Your task to perform on an android device: install app "PUBG MOBILE" Image 0: 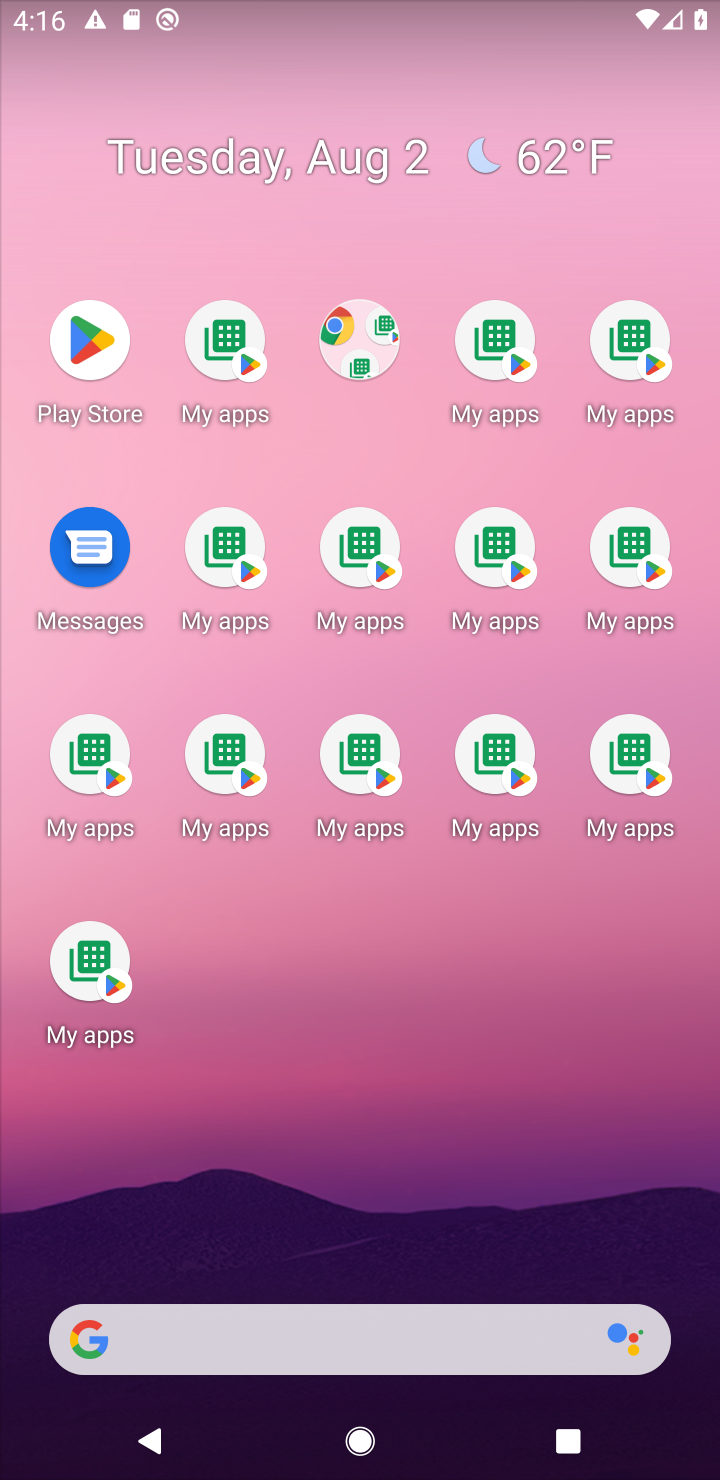
Step 0: click (96, 316)
Your task to perform on an android device: install app "PUBG MOBILE" Image 1: 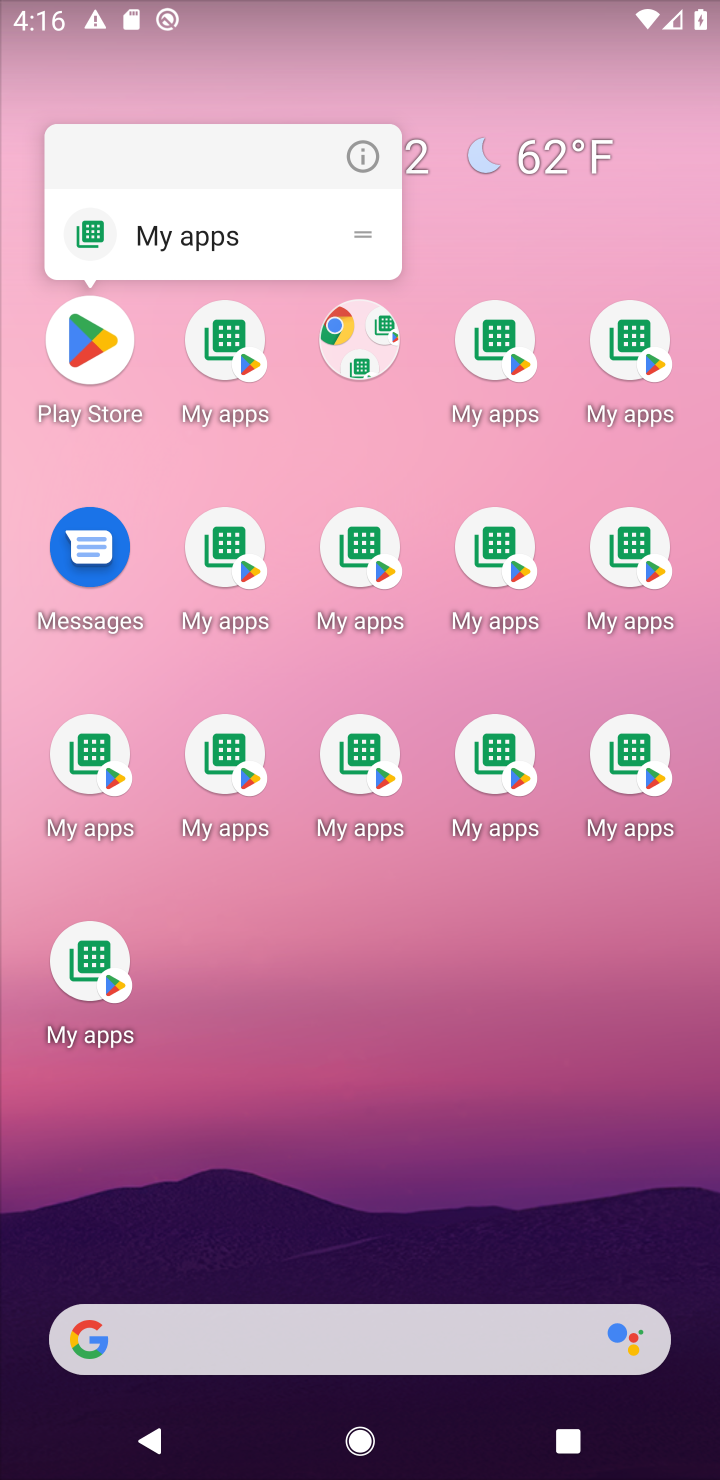
Step 1: press back button
Your task to perform on an android device: install app "PUBG MOBILE" Image 2: 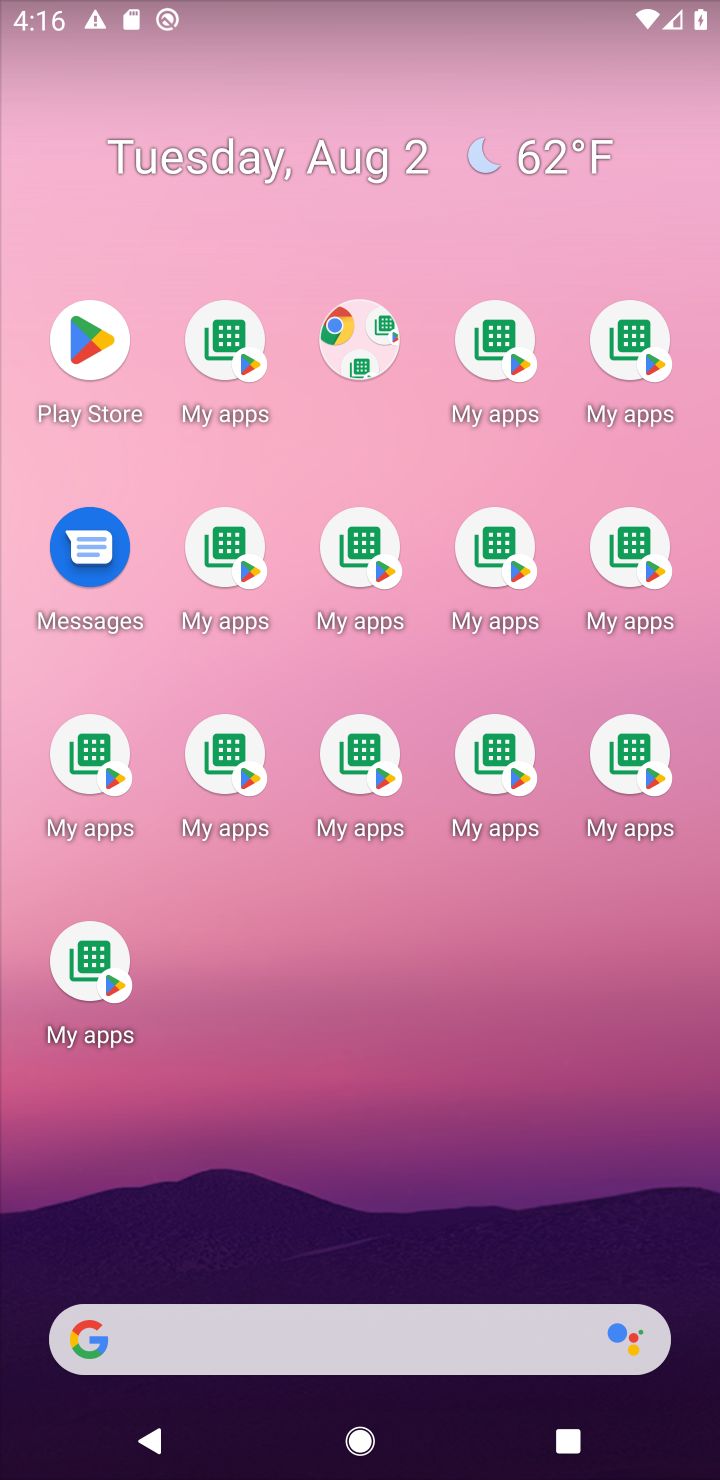
Step 2: drag from (398, 279) to (397, 397)
Your task to perform on an android device: install app "PUBG MOBILE" Image 3: 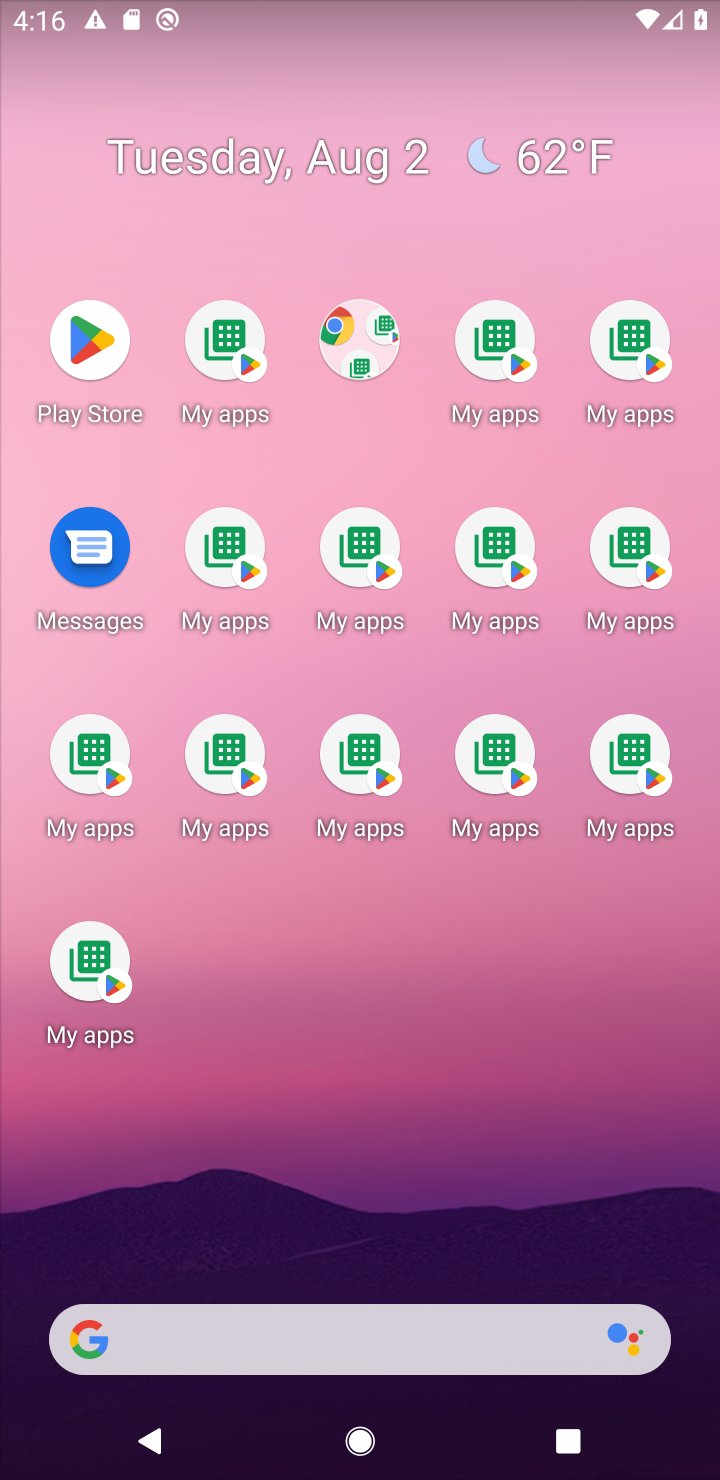
Step 3: drag from (32, 693) to (0, 389)
Your task to perform on an android device: install app "PUBG MOBILE" Image 4: 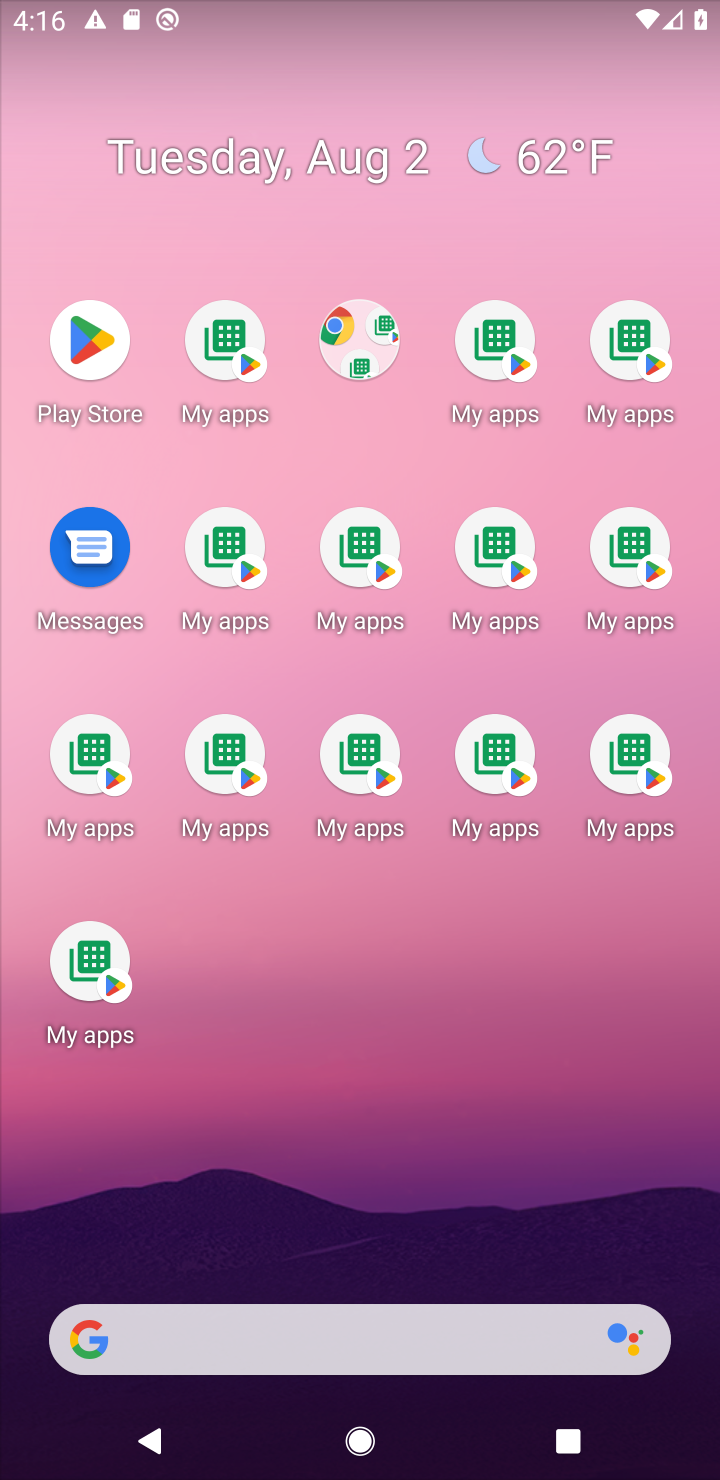
Step 4: click (291, 354)
Your task to perform on an android device: install app "PUBG MOBILE" Image 5: 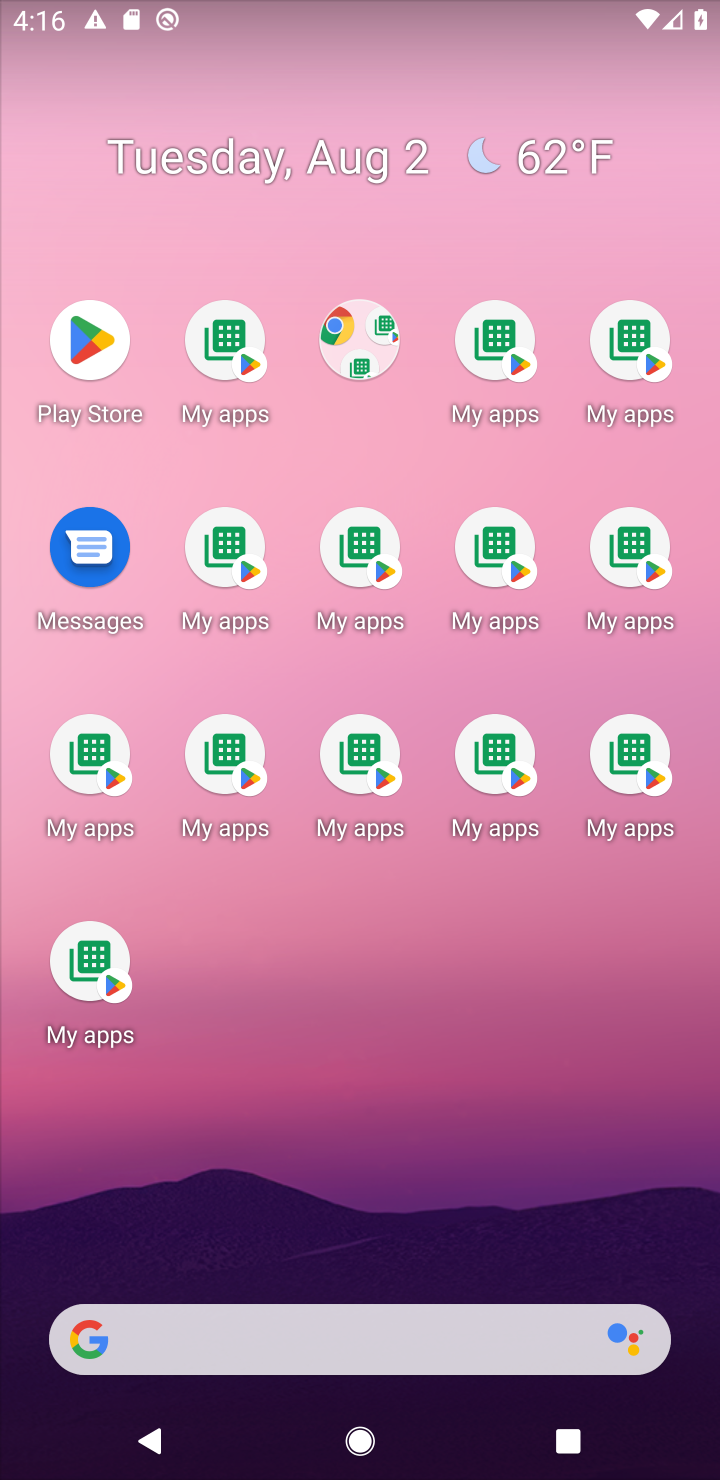
Step 5: drag from (313, 86) to (698, 414)
Your task to perform on an android device: install app "PUBG MOBILE" Image 6: 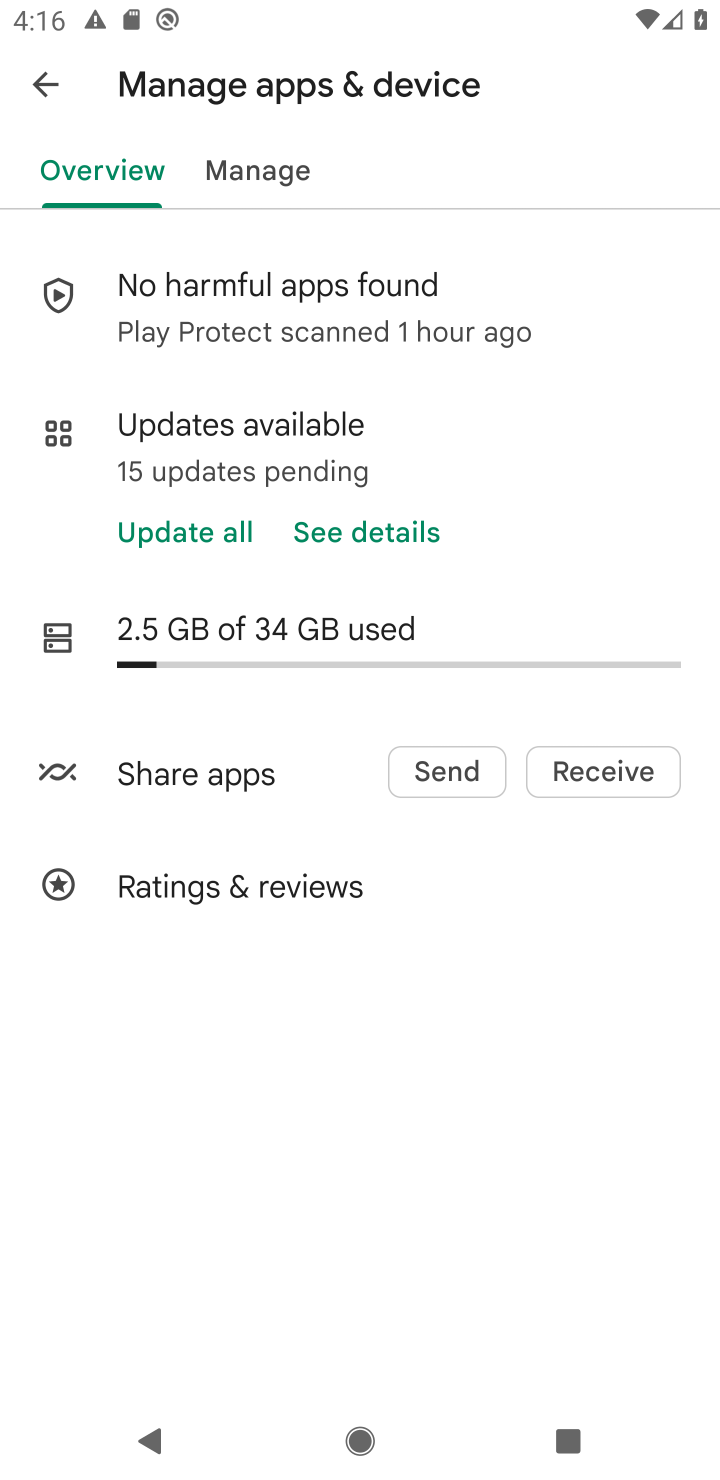
Step 6: drag from (607, 780) to (314, 83)
Your task to perform on an android device: install app "PUBG MOBILE" Image 7: 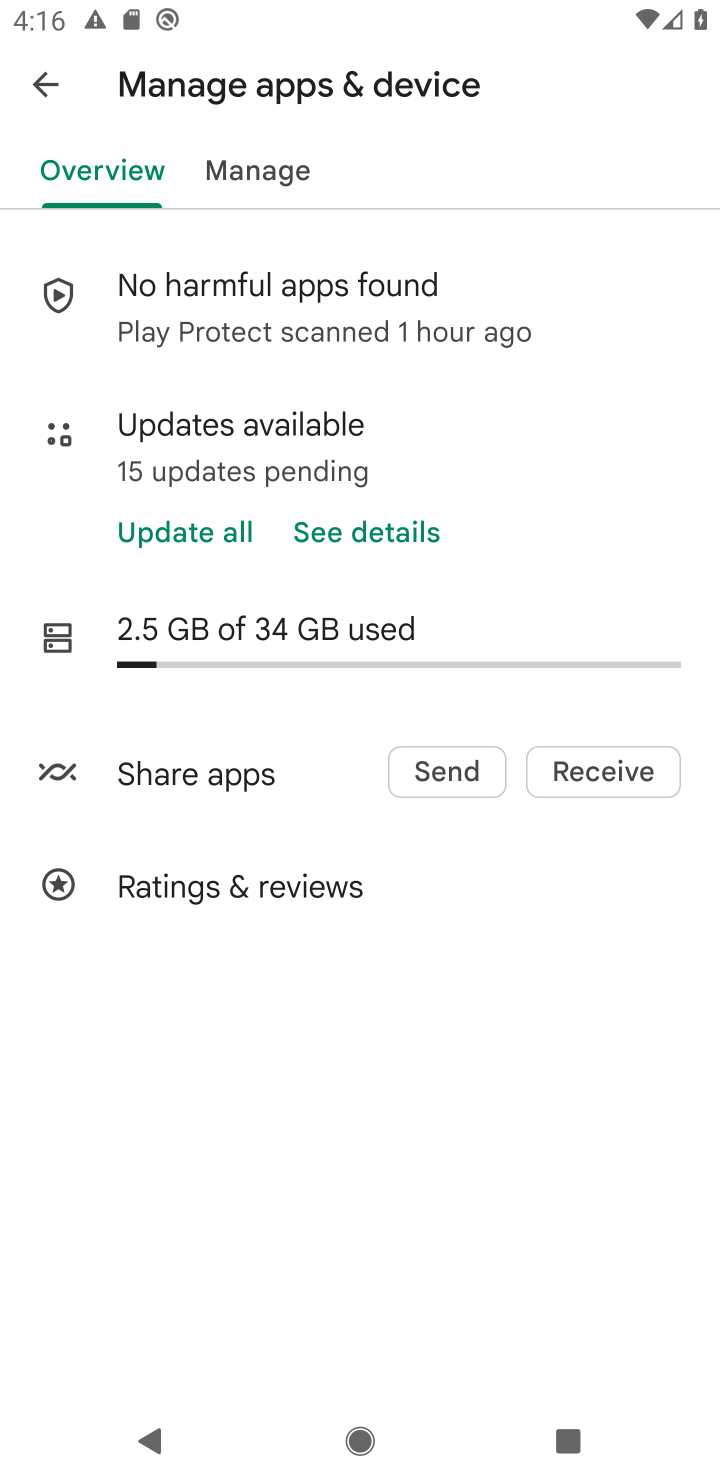
Step 7: click (28, 72)
Your task to perform on an android device: install app "PUBG MOBILE" Image 8: 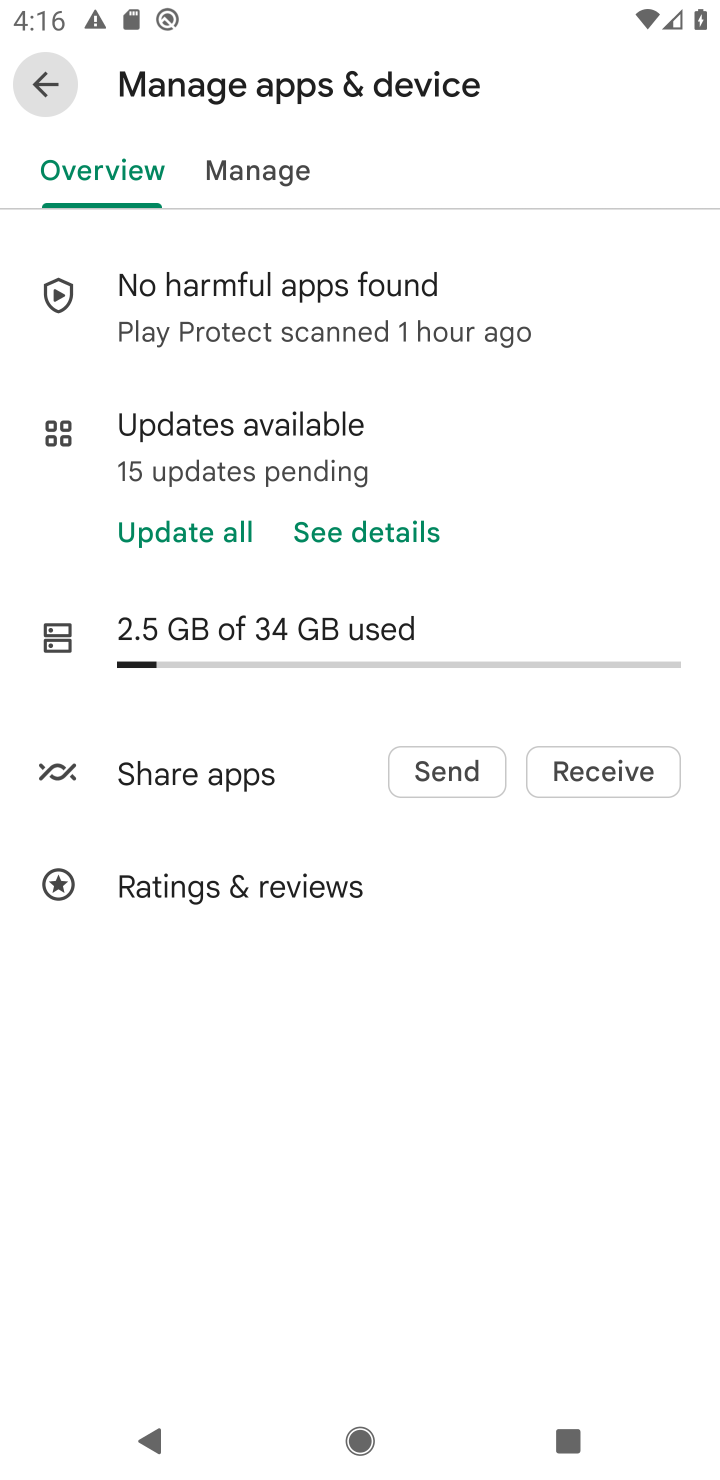
Step 8: click (22, 65)
Your task to perform on an android device: install app "PUBG MOBILE" Image 9: 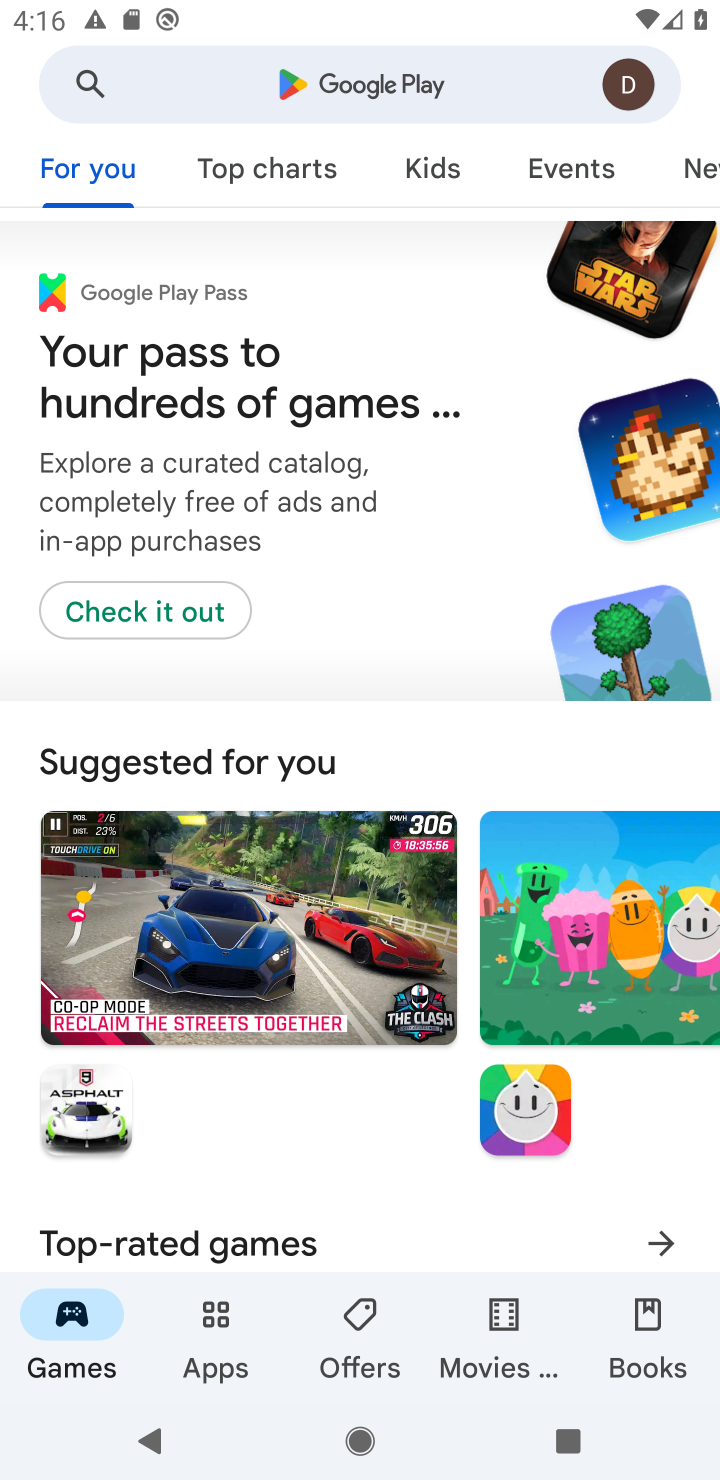
Step 9: click (344, 70)
Your task to perform on an android device: install app "PUBG MOBILE" Image 10: 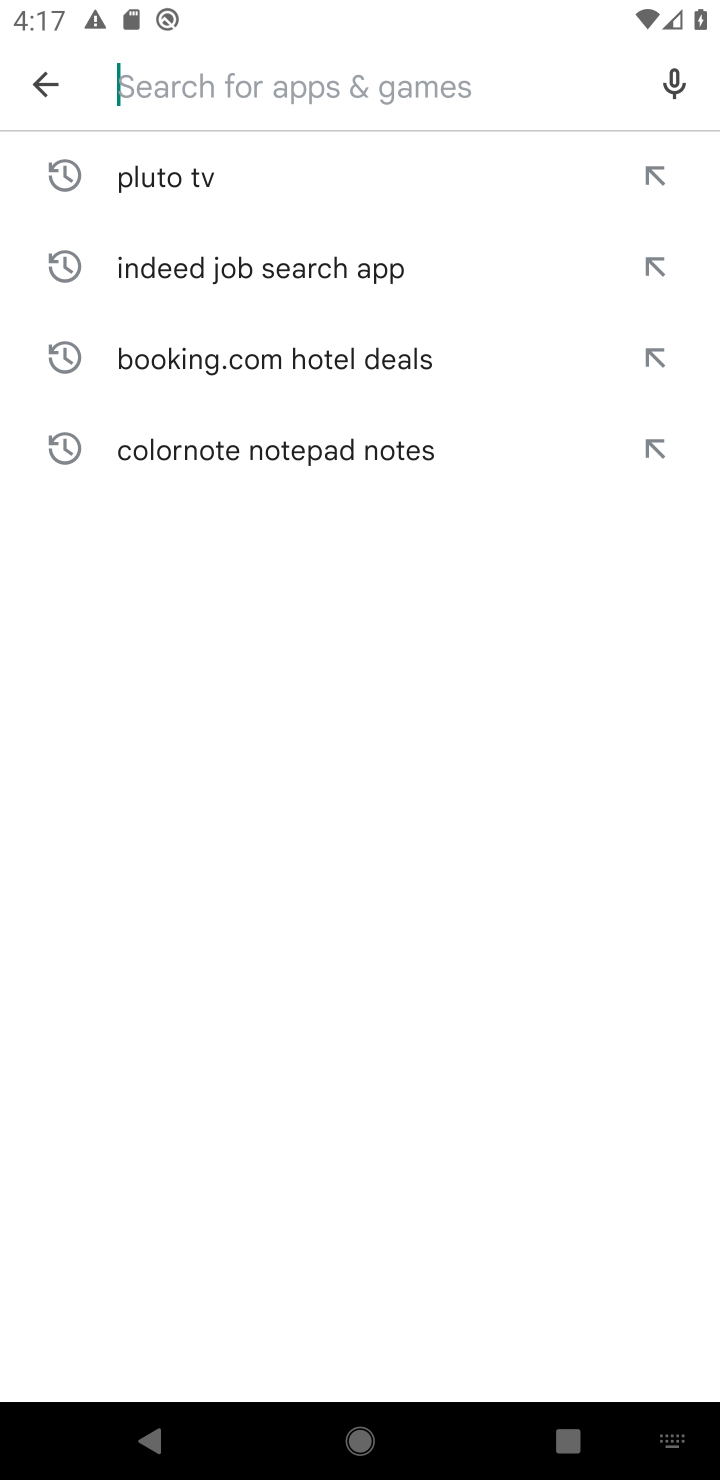
Step 10: type "pubg mobile"
Your task to perform on an android device: install app "PUBG MOBILE" Image 11: 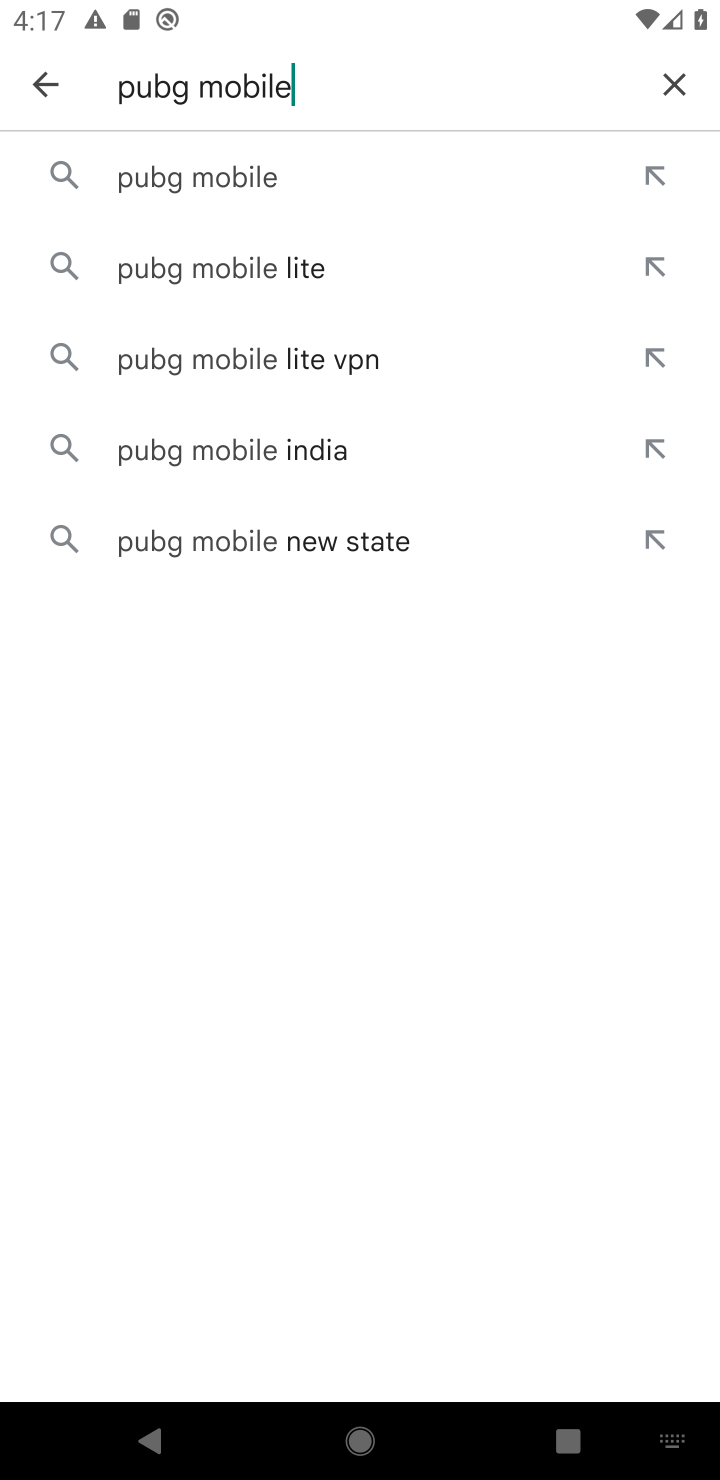
Step 11: click (228, 196)
Your task to perform on an android device: install app "PUBG MOBILE" Image 12: 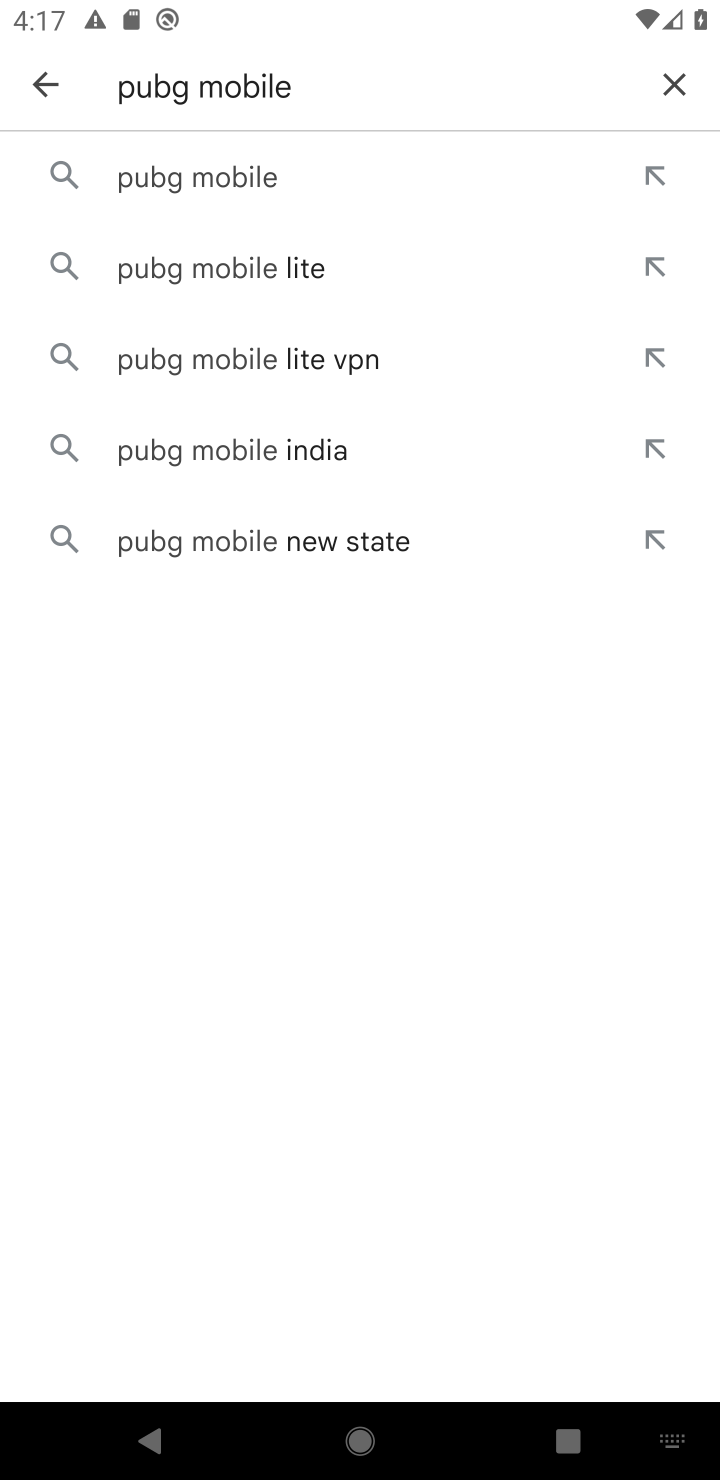
Step 12: click (230, 190)
Your task to perform on an android device: install app "PUBG MOBILE" Image 13: 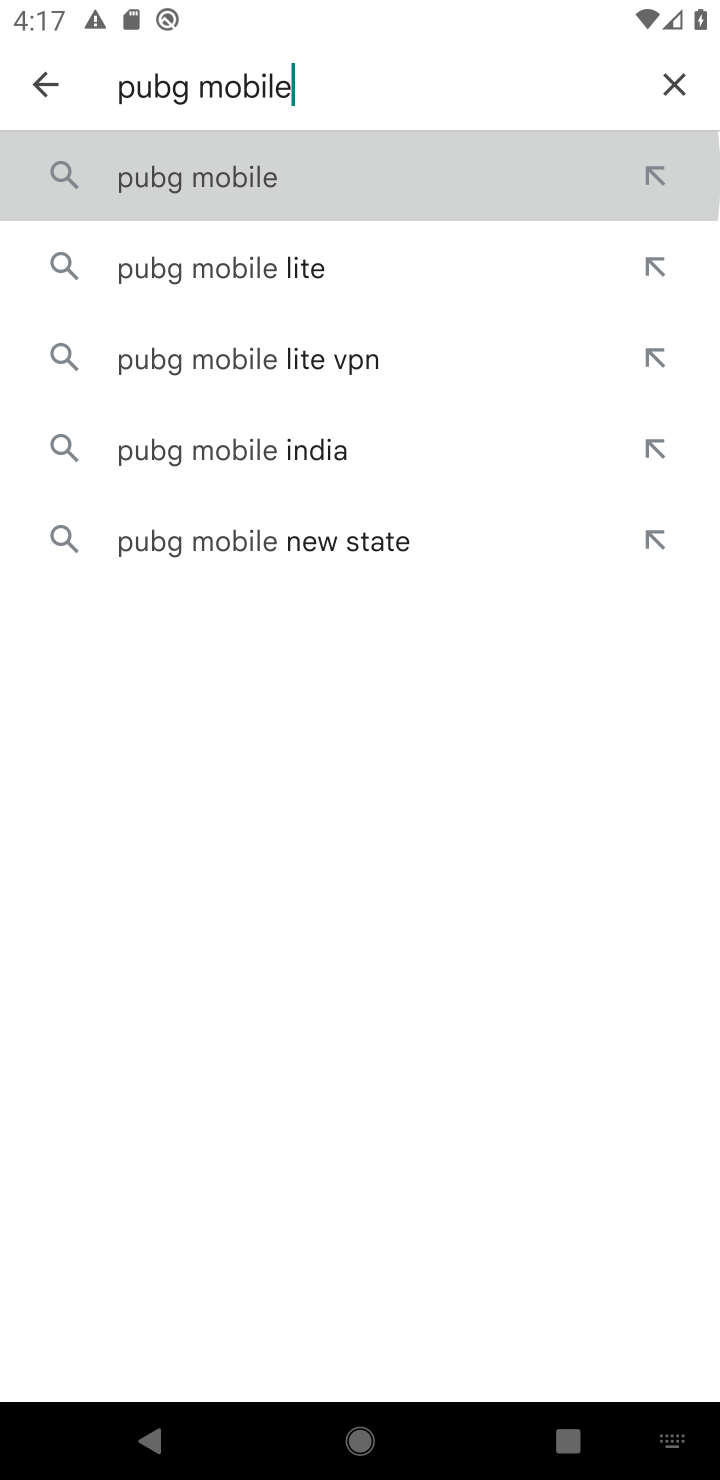
Step 13: click (231, 189)
Your task to perform on an android device: install app "PUBG MOBILE" Image 14: 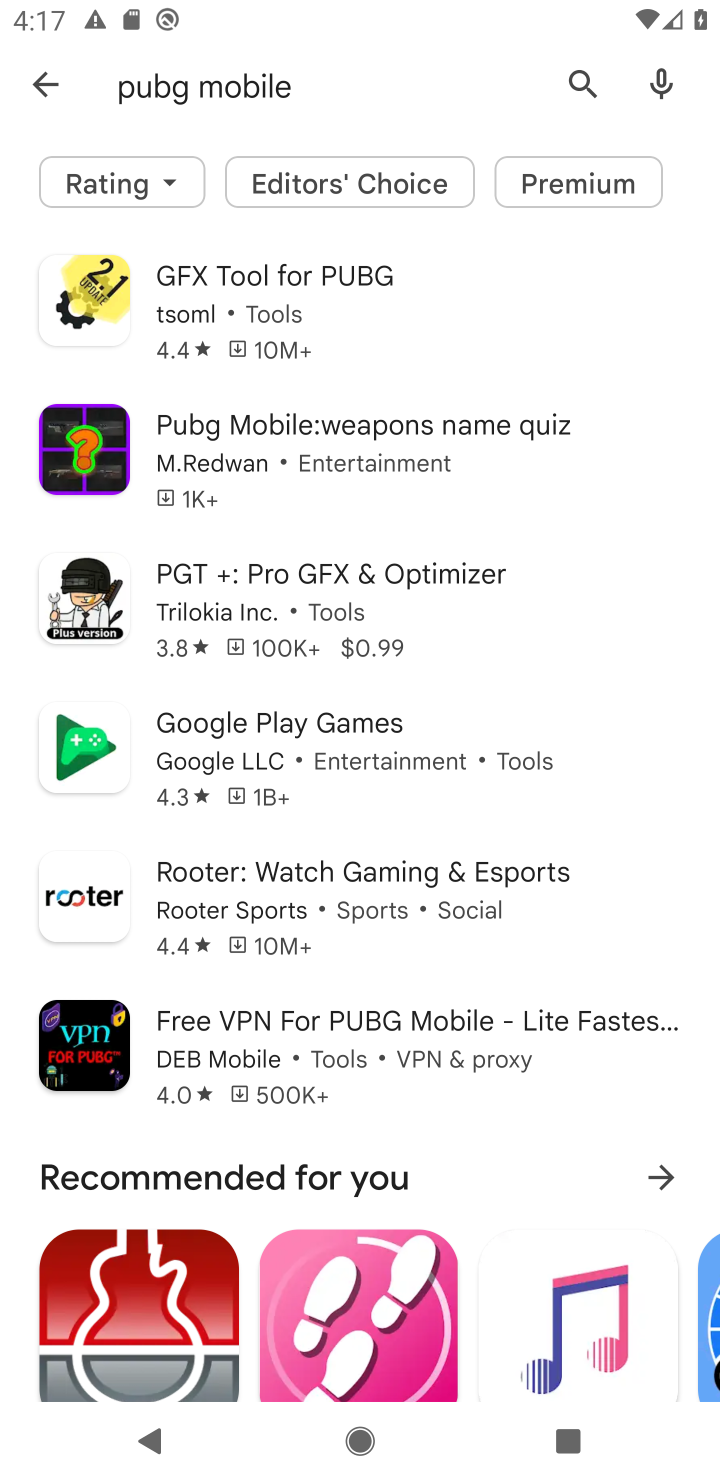
Step 14: task complete